Your task to perform on an android device: Show me popular games on the Play Store Image 0: 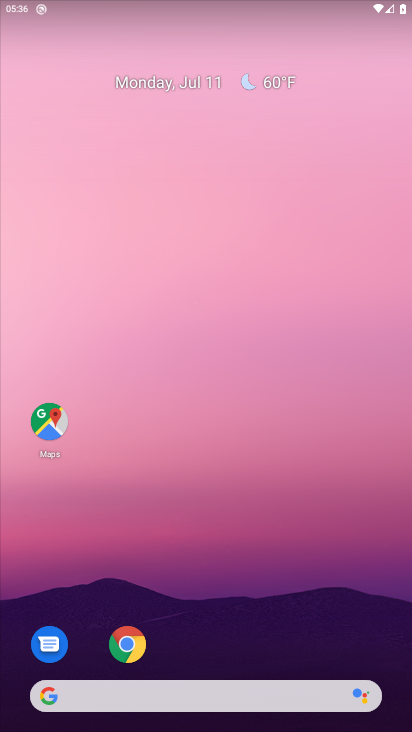
Step 0: drag from (266, 681) to (294, 326)
Your task to perform on an android device: Show me popular games on the Play Store Image 1: 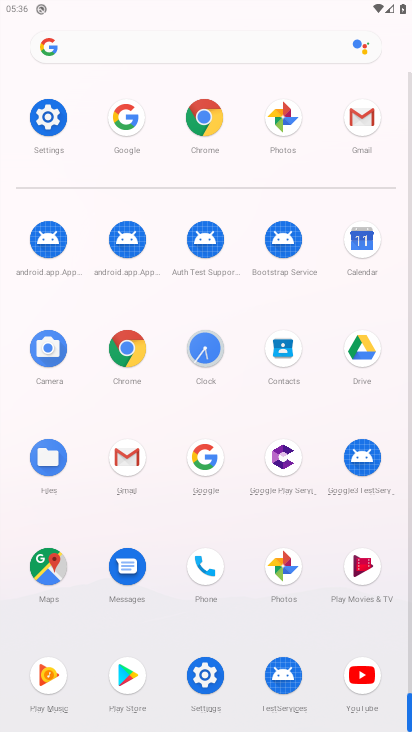
Step 1: click (129, 680)
Your task to perform on an android device: Show me popular games on the Play Store Image 2: 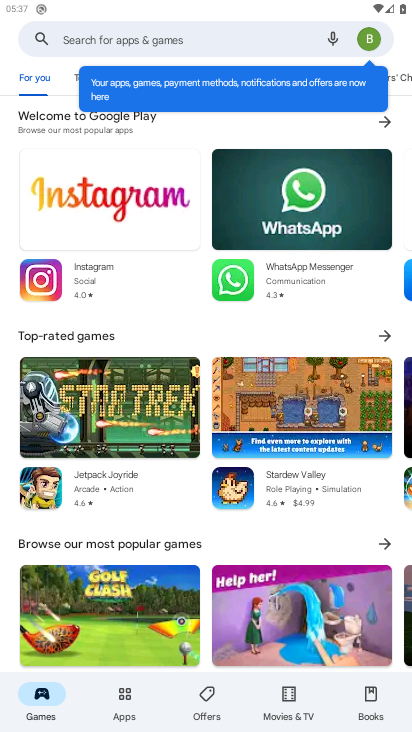
Step 2: click (187, 38)
Your task to perform on an android device: Show me popular games on the Play Store Image 3: 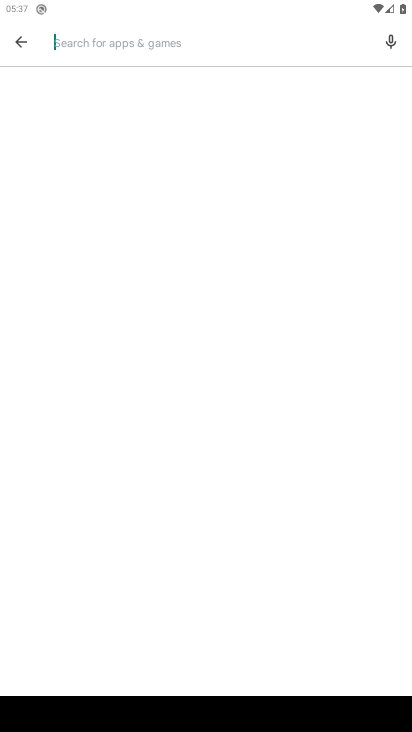
Step 3: type "popular games"
Your task to perform on an android device: Show me popular games on the Play Store Image 4: 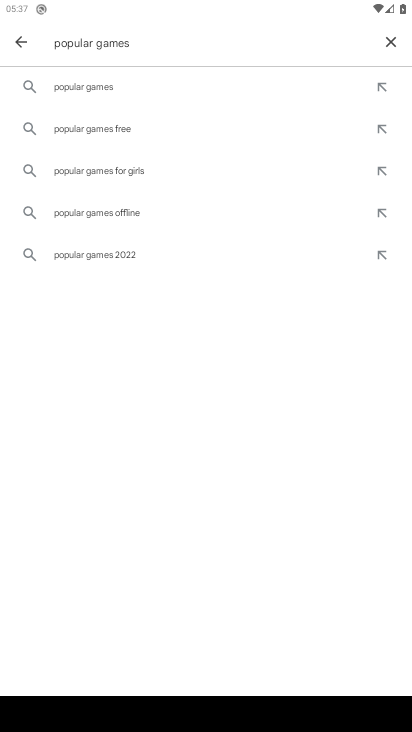
Step 4: click (64, 93)
Your task to perform on an android device: Show me popular games on the Play Store Image 5: 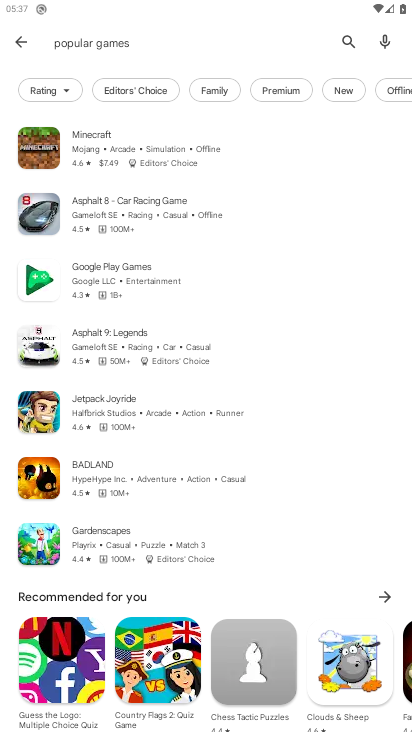
Step 5: task complete